Your task to perform on an android device: turn off translation in the chrome app Image 0: 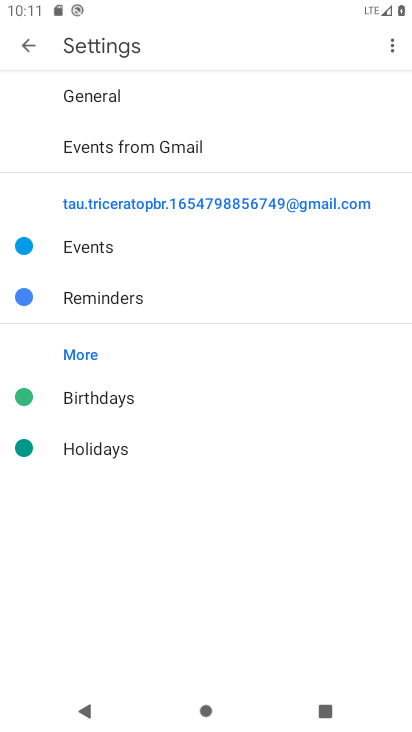
Step 0: press home button
Your task to perform on an android device: turn off translation in the chrome app Image 1: 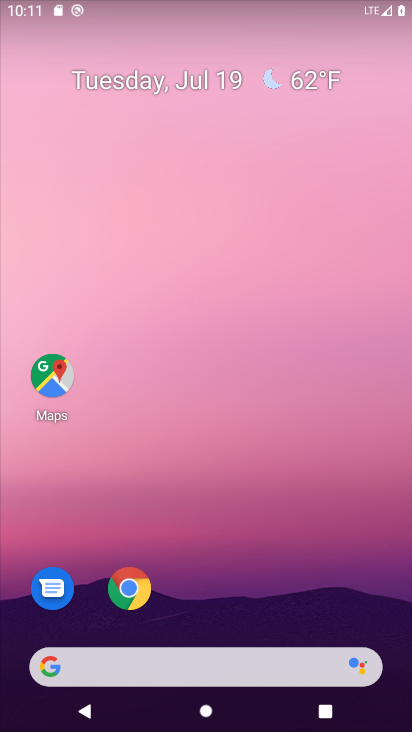
Step 1: click (126, 588)
Your task to perform on an android device: turn off translation in the chrome app Image 2: 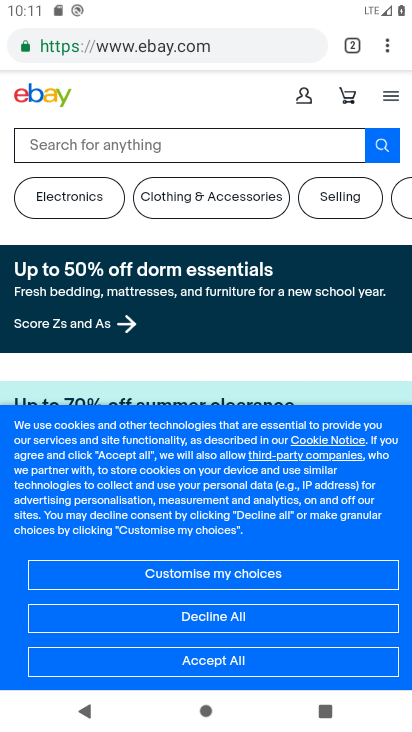
Step 2: click (387, 49)
Your task to perform on an android device: turn off translation in the chrome app Image 3: 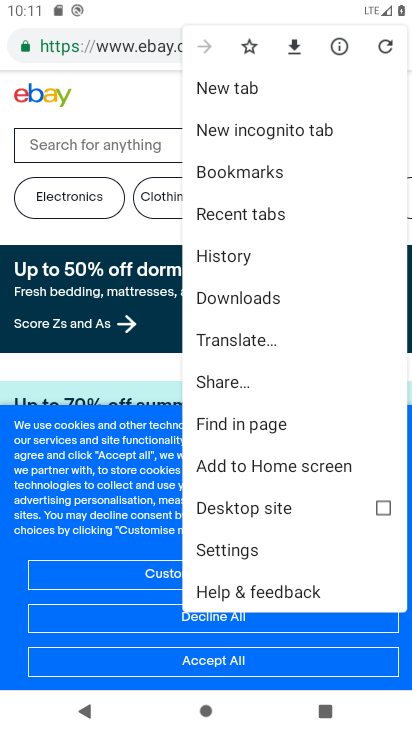
Step 3: click (232, 561)
Your task to perform on an android device: turn off translation in the chrome app Image 4: 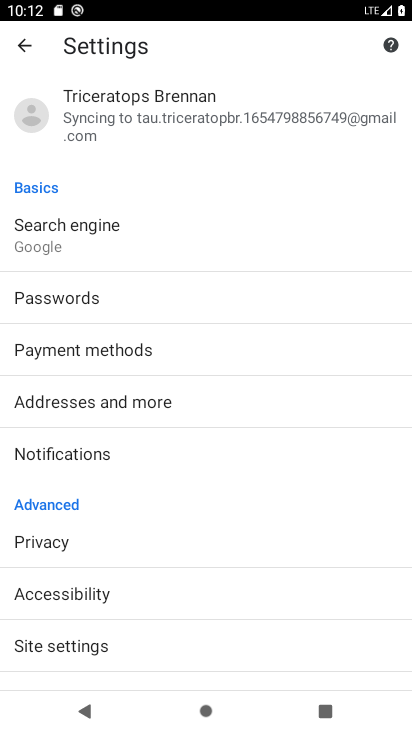
Step 4: drag from (196, 561) to (205, 260)
Your task to perform on an android device: turn off translation in the chrome app Image 5: 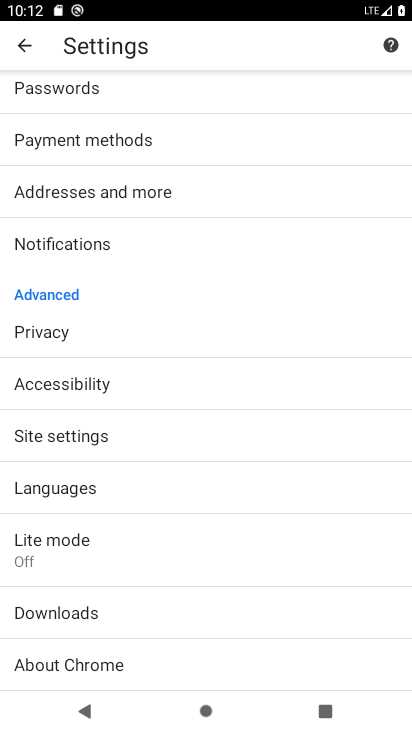
Step 5: click (97, 490)
Your task to perform on an android device: turn off translation in the chrome app Image 6: 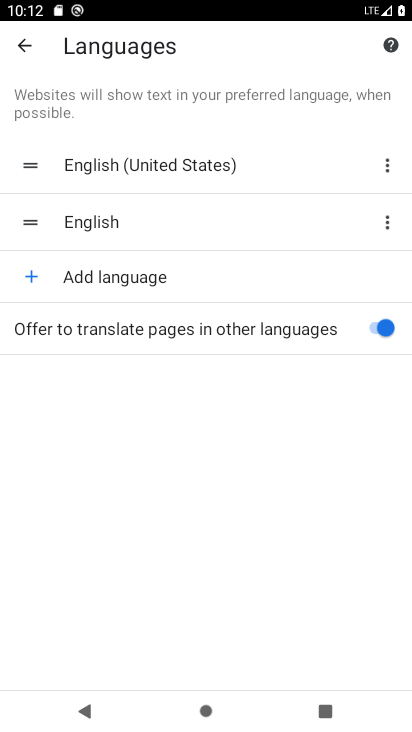
Step 6: click (370, 325)
Your task to perform on an android device: turn off translation in the chrome app Image 7: 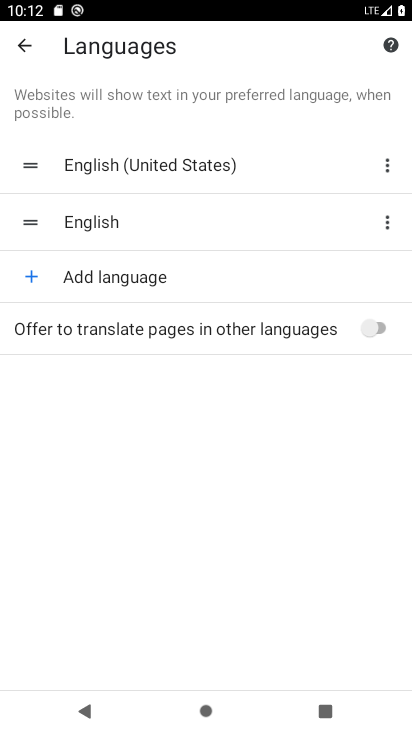
Step 7: task complete